Your task to perform on an android device: add a contact in the contacts app Image 0: 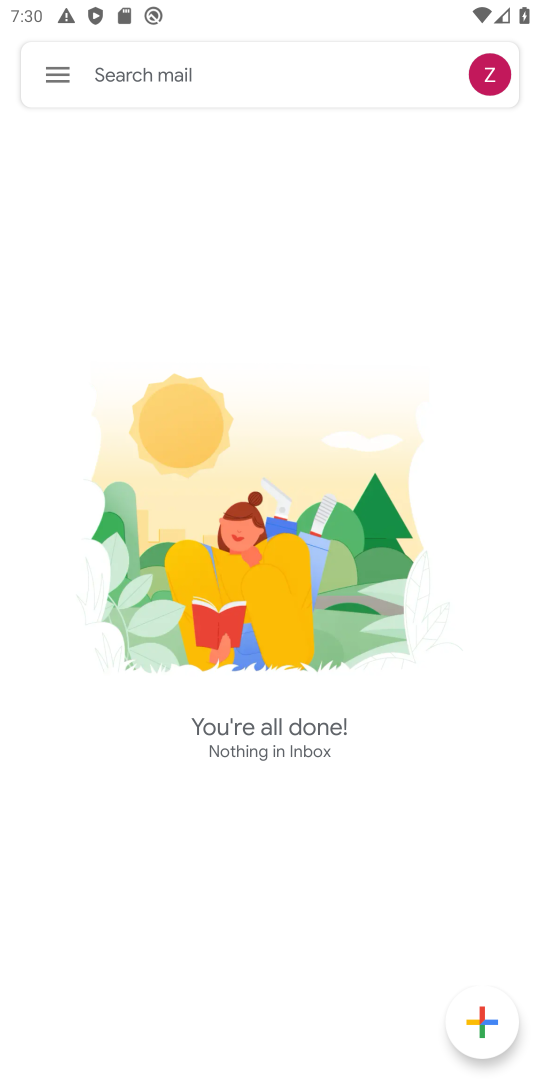
Step 0: press home button
Your task to perform on an android device: add a contact in the contacts app Image 1: 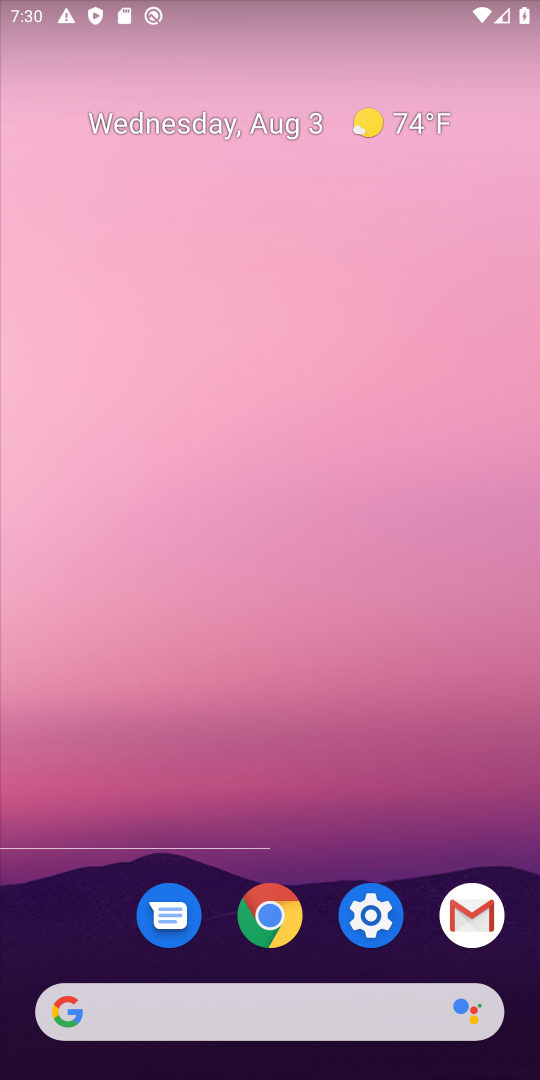
Step 1: drag from (299, 1017) to (174, 262)
Your task to perform on an android device: add a contact in the contacts app Image 2: 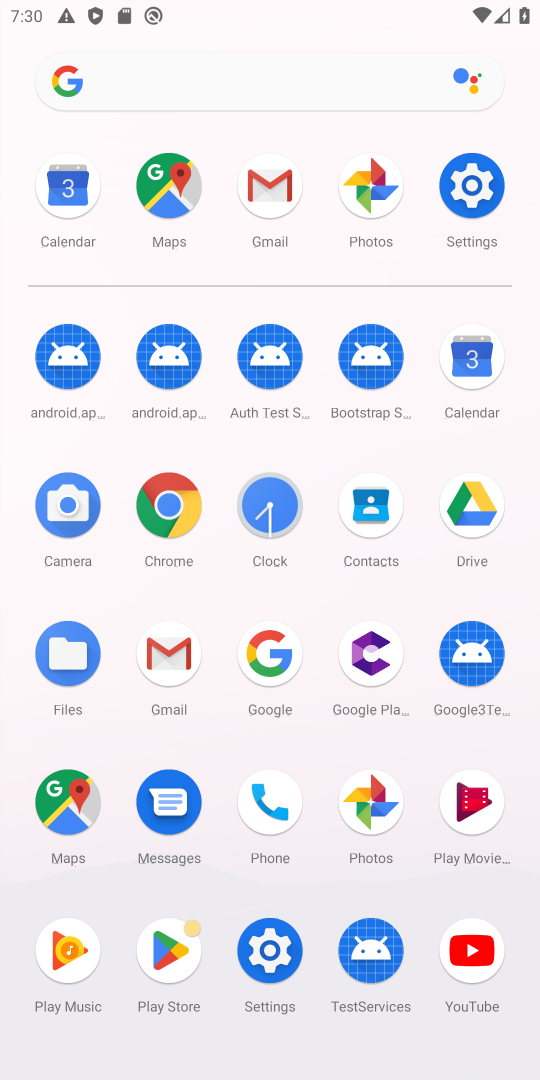
Step 2: click (273, 798)
Your task to perform on an android device: add a contact in the contacts app Image 3: 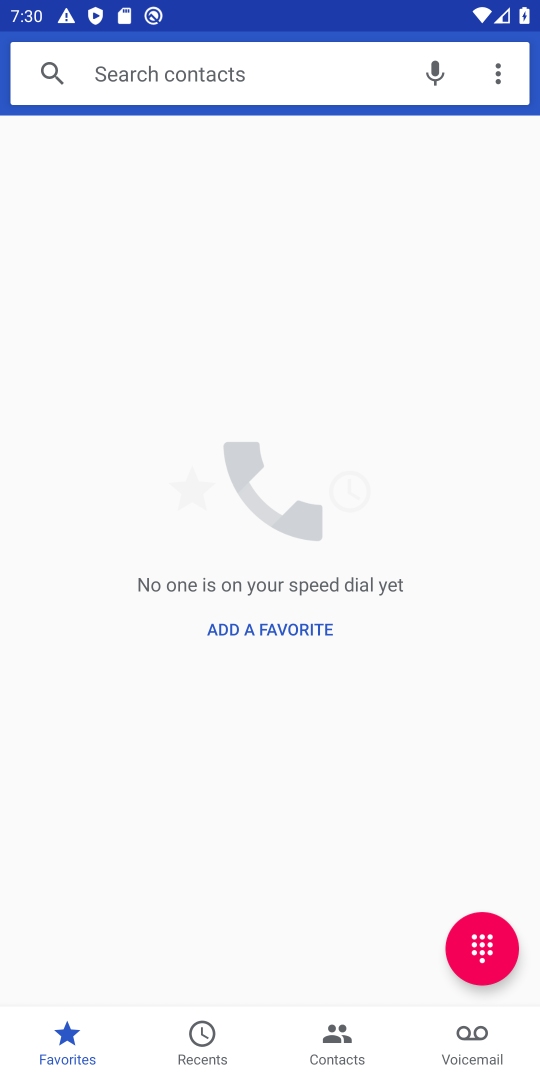
Step 3: click (355, 1036)
Your task to perform on an android device: add a contact in the contacts app Image 4: 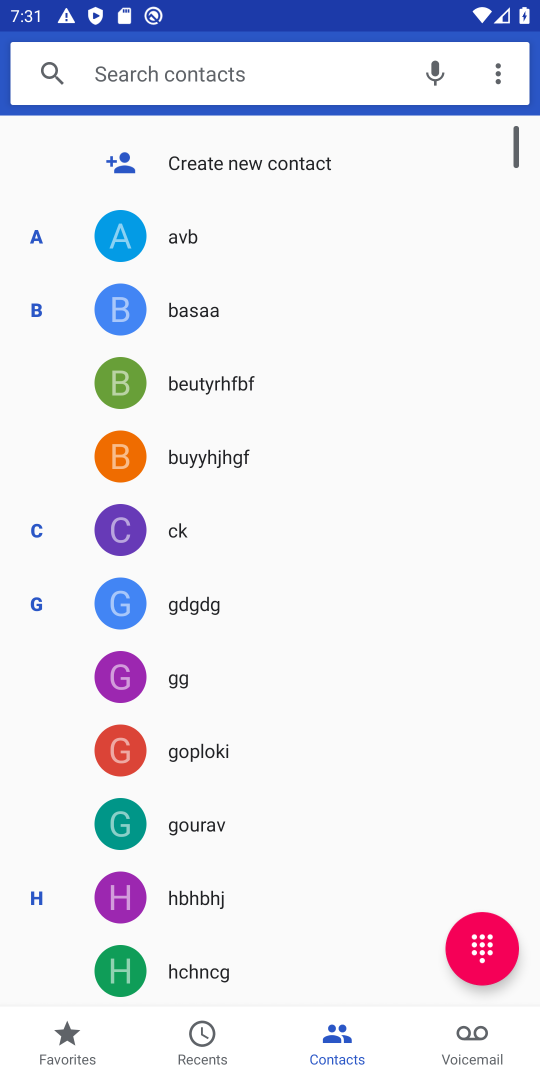
Step 4: click (193, 168)
Your task to perform on an android device: add a contact in the contacts app Image 5: 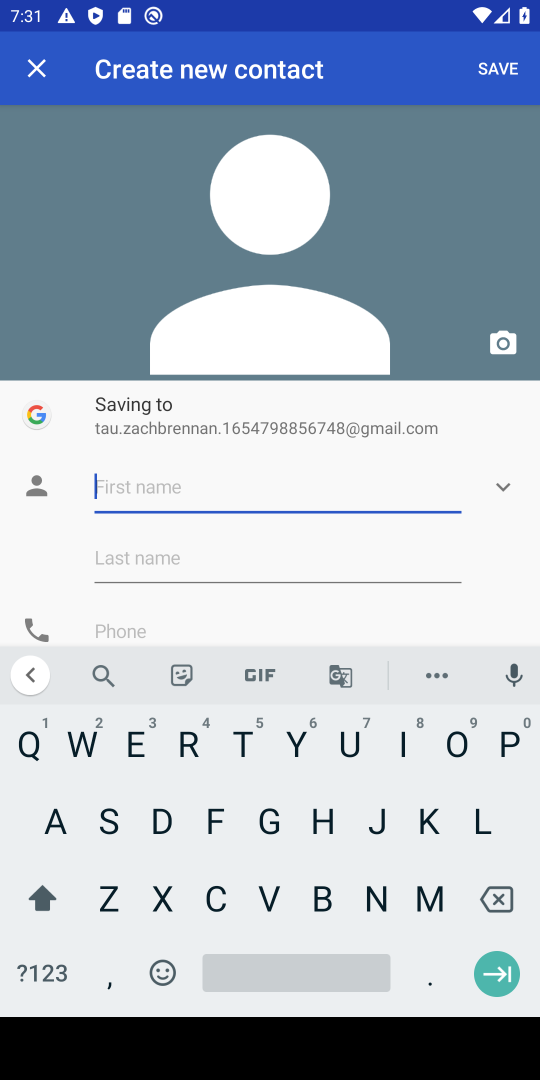
Step 5: click (262, 800)
Your task to perform on an android device: add a contact in the contacts app Image 6: 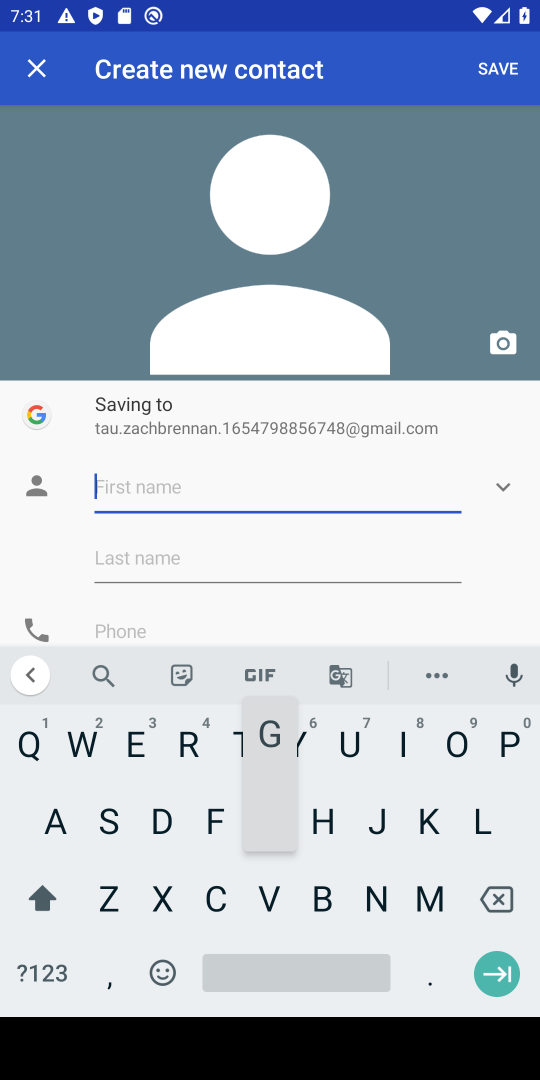
Step 6: click (299, 841)
Your task to perform on an android device: add a contact in the contacts app Image 7: 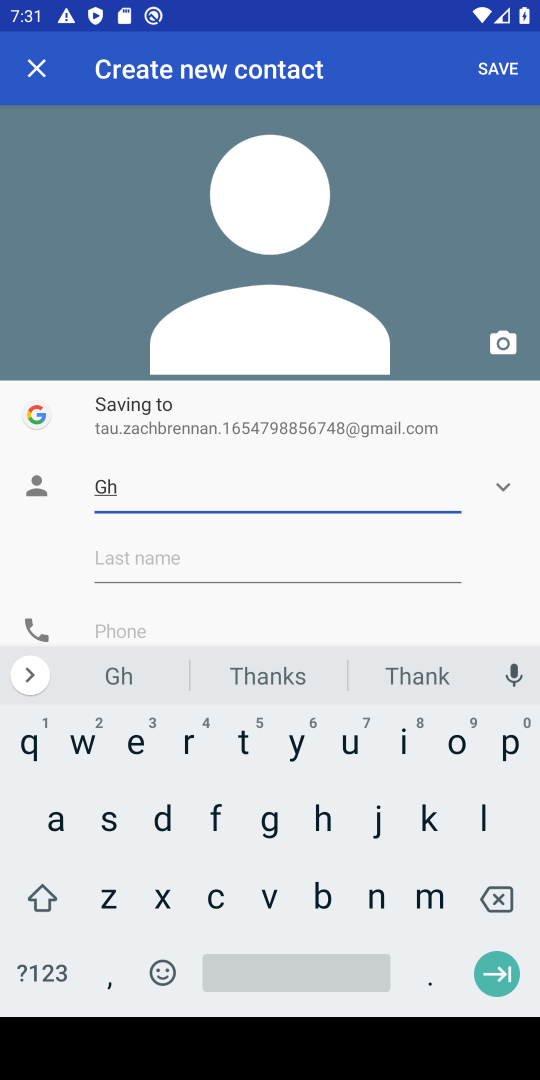
Step 7: click (139, 617)
Your task to perform on an android device: add a contact in the contacts app Image 8: 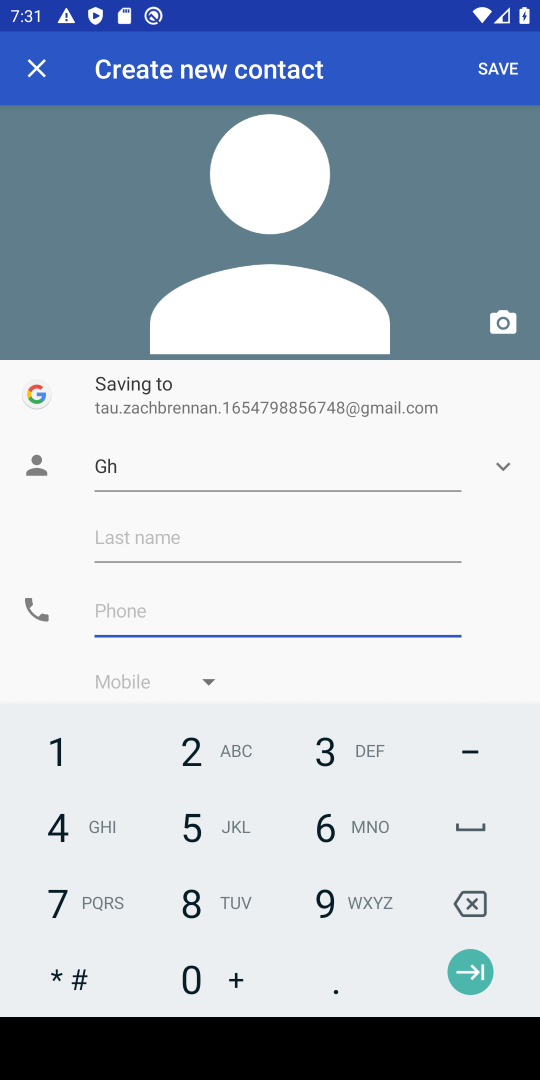
Step 8: click (348, 831)
Your task to perform on an android device: add a contact in the contacts app Image 9: 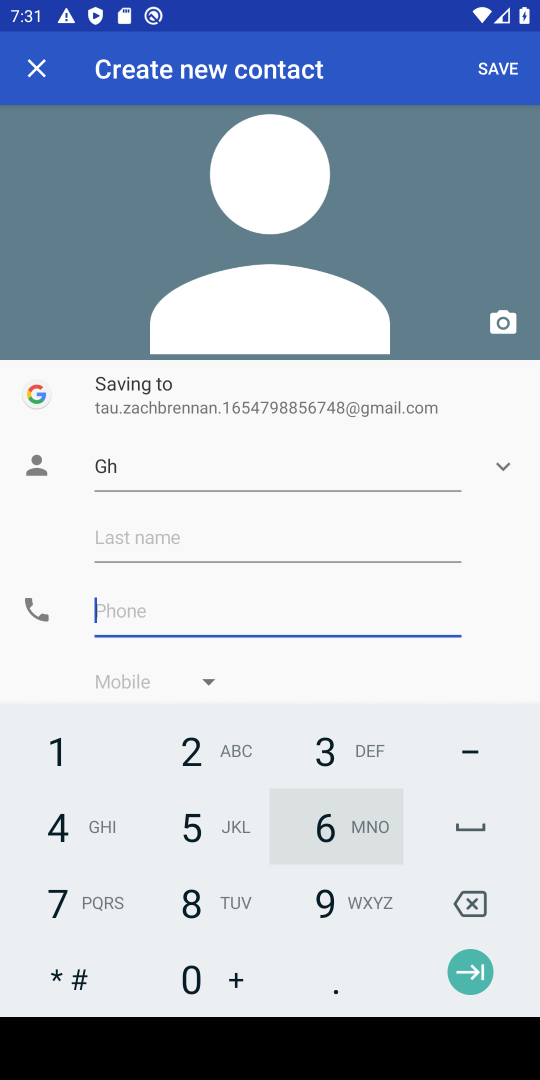
Step 9: click (226, 799)
Your task to perform on an android device: add a contact in the contacts app Image 10: 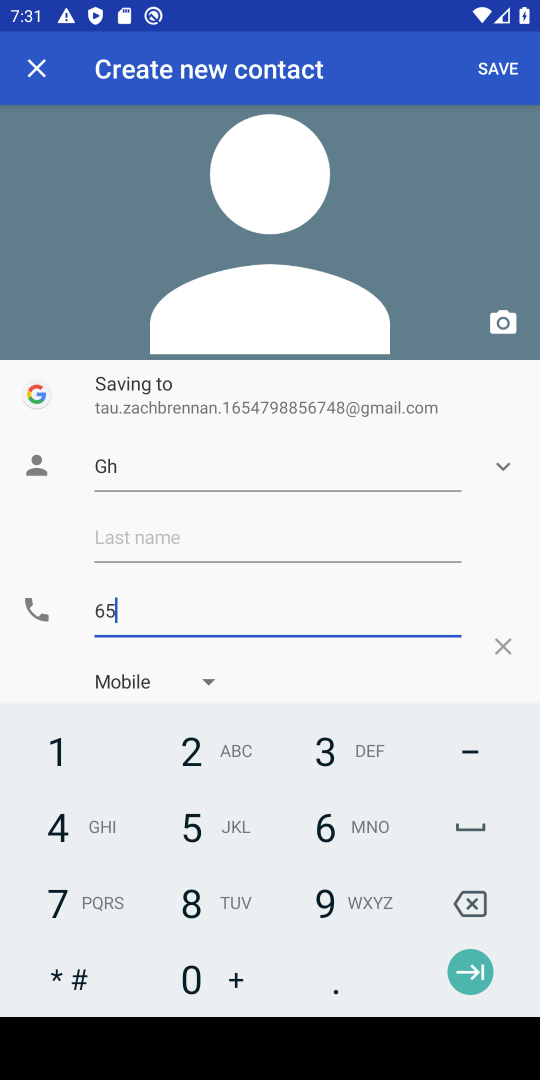
Step 10: click (206, 755)
Your task to perform on an android device: add a contact in the contacts app Image 11: 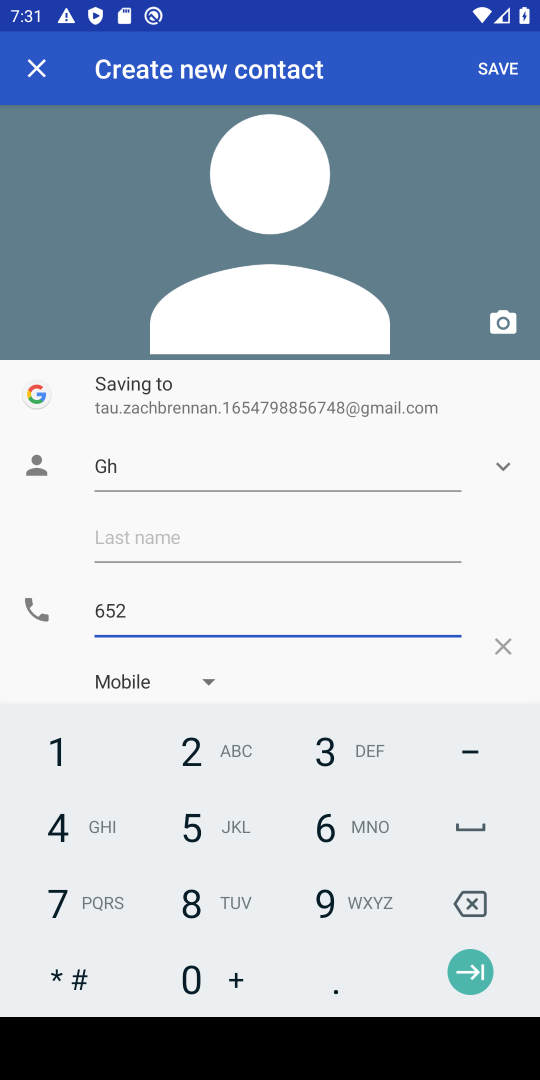
Step 11: click (484, 72)
Your task to perform on an android device: add a contact in the contacts app Image 12: 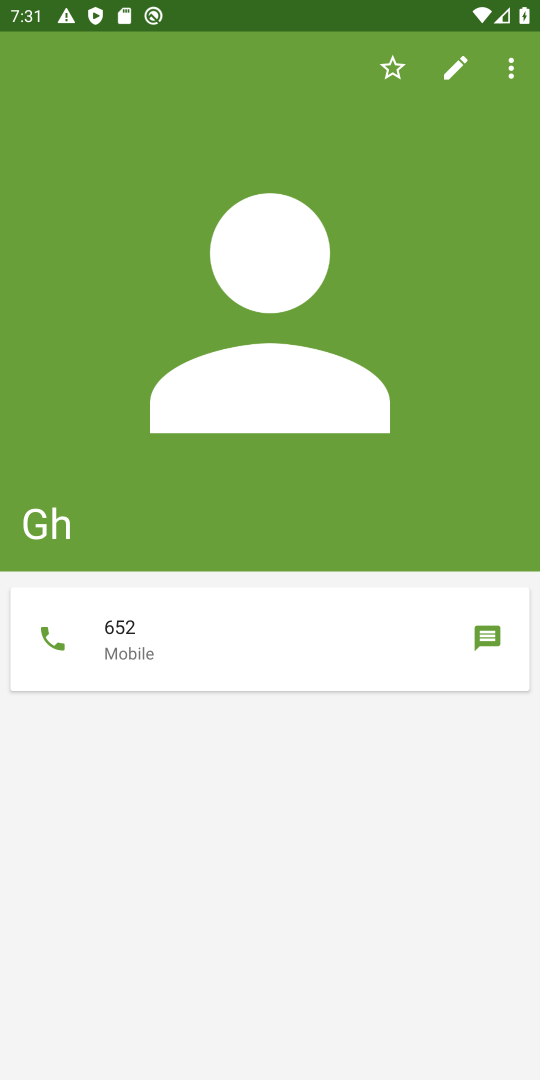
Step 12: task complete